Your task to perform on an android device: open app "Flipkart Online Shopping App" (install if not already installed) Image 0: 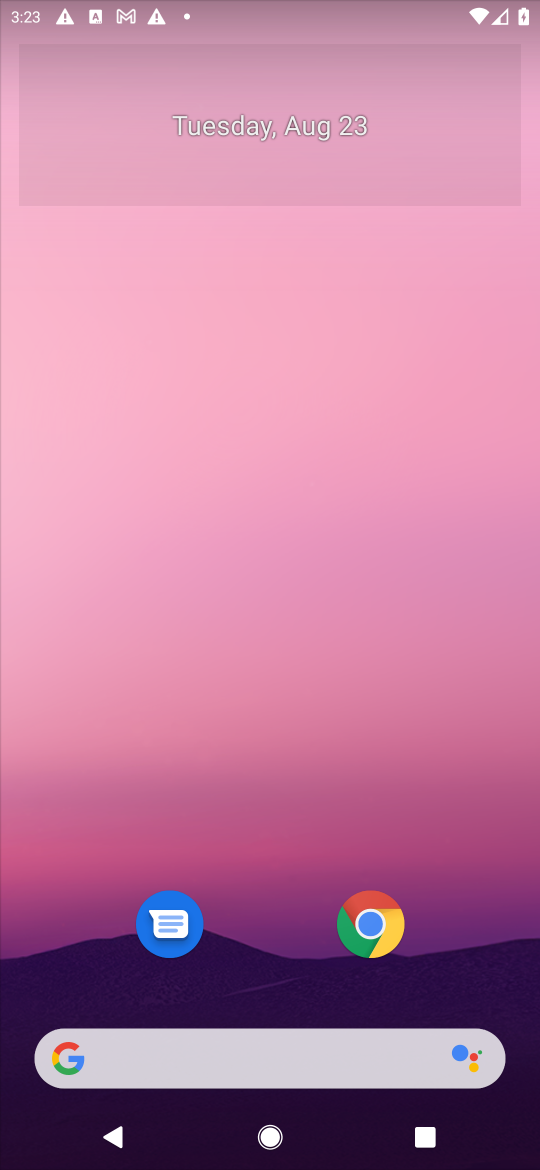
Step 0: drag from (476, 857) to (435, 105)
Your task to perform on an android device: open app "Flipkart Online Shopping App" (install if not already installed) Image 1: 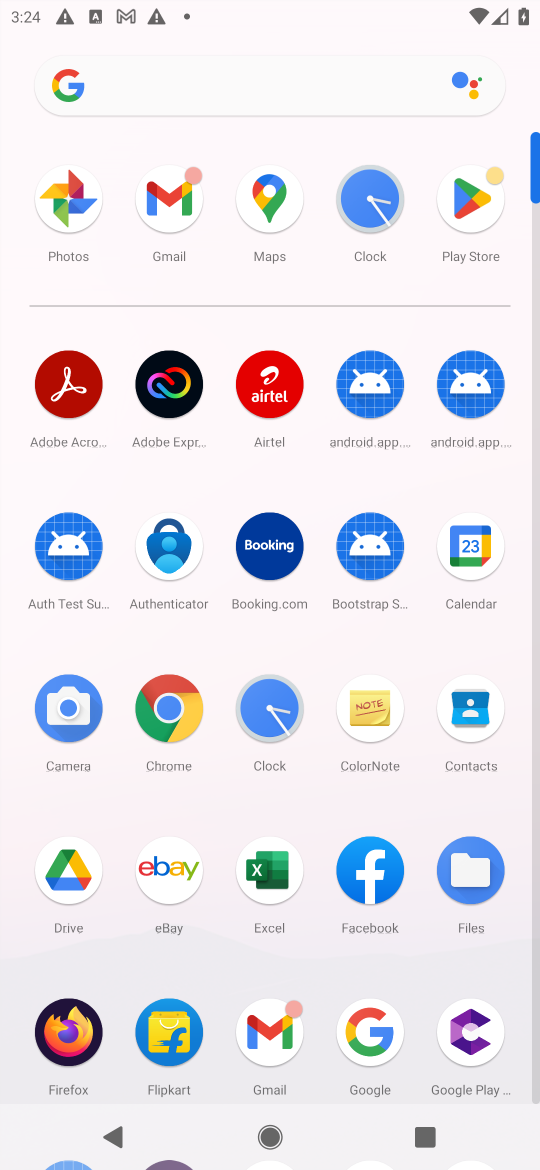
Step 1: click (473, 194)
Your task to perform on an android device: open app "Flipkart Online Shopping App" (install if not already installed) Image 2: 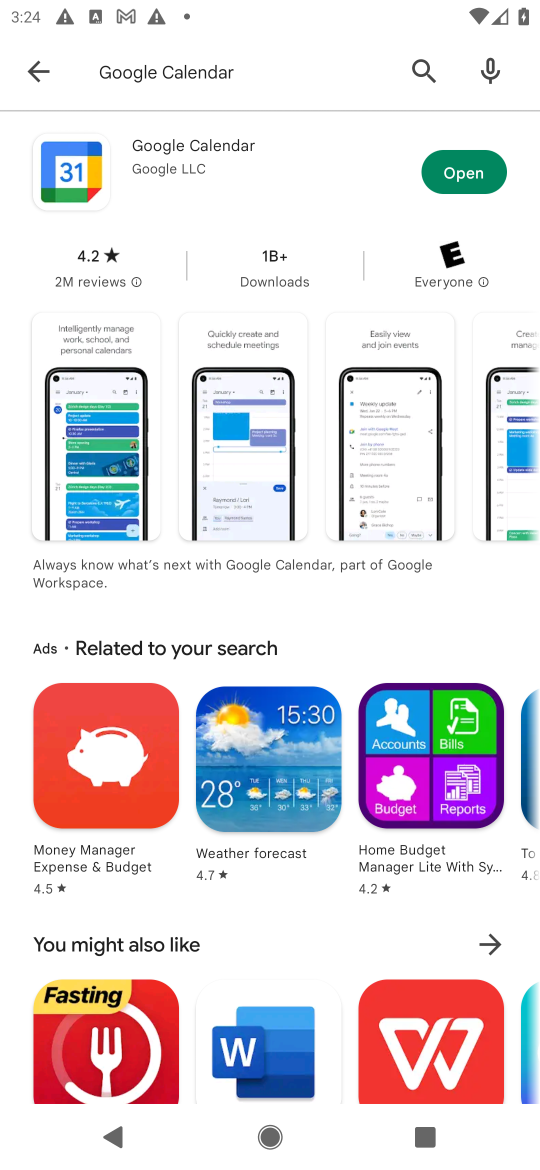
Step 2: press back button
Your task to perform on an android device: open app "Flipkart Online Shopping App" (install if not already installed) Image 3: 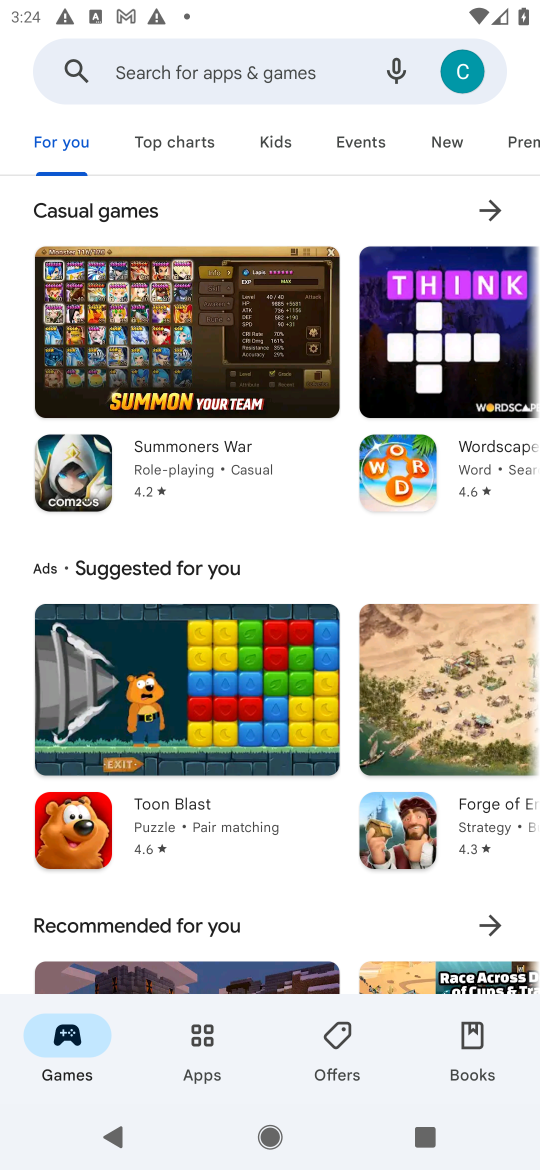
Step 3: click (255, 71)
Your task to perform on an android device: open app "Flipkart Online Shopping App" (install if not already installed) Image 4: 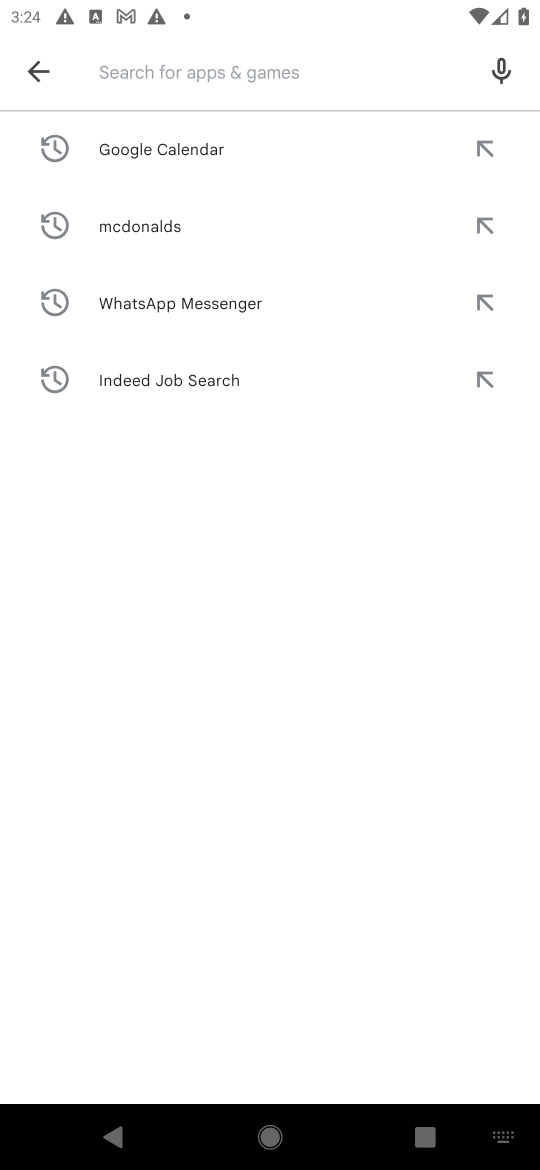
Step 4: type "Flipkart Online Shopping App"
Your task to perform on an android device: open app "Flipkart Online Shopping App" (install if not already installed) Image 5: 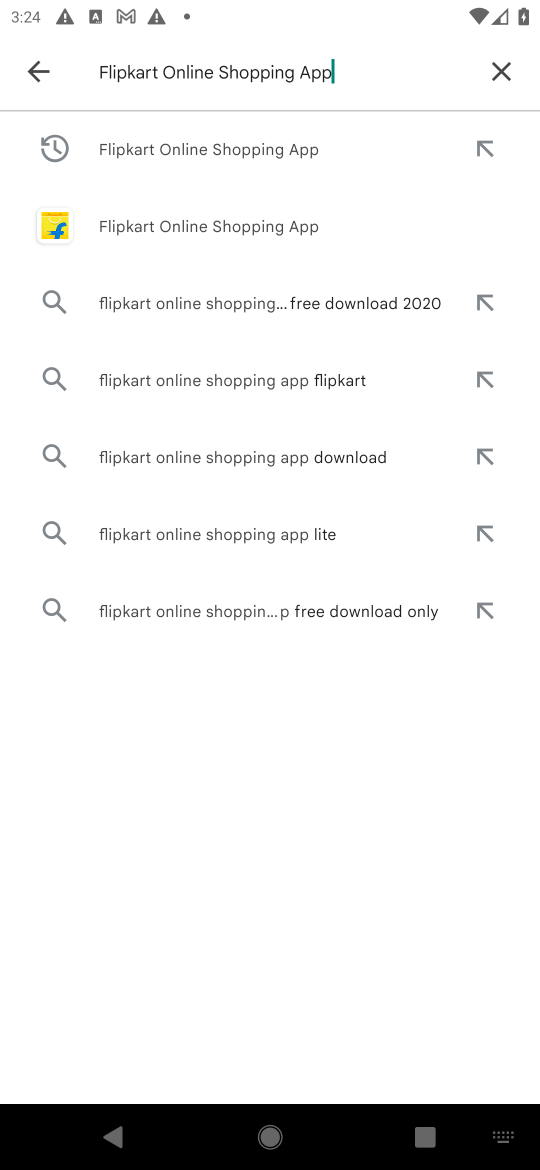
Step 5: press enter
Your task to perform on an android device: open app "Flipkart Online Shopping App" (install if not already installed) Image 6: 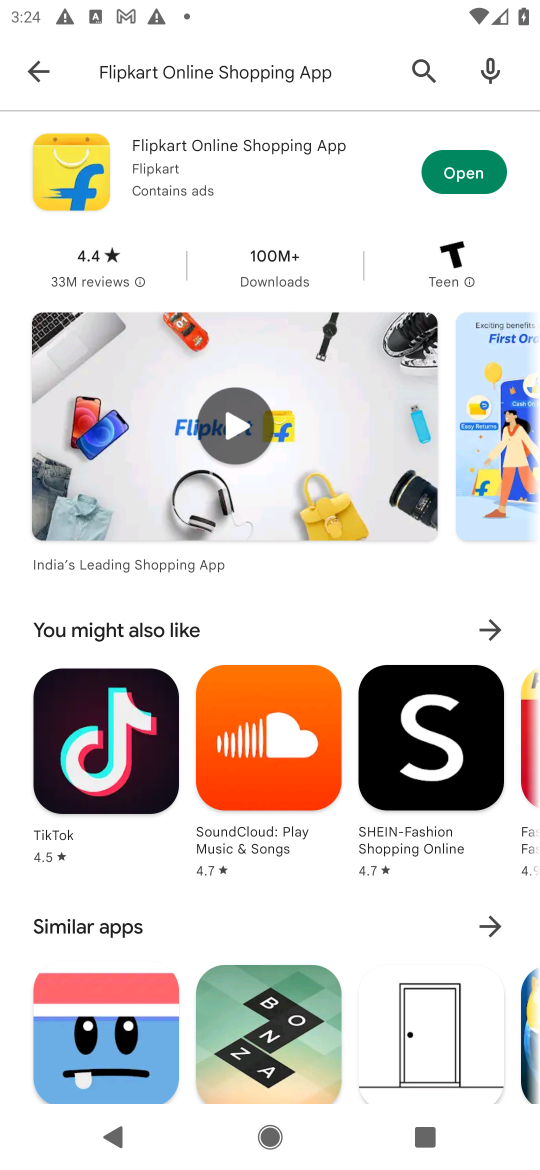
Step 6: click (458, 174)
Your task to perform on an android device: open app "Flipkart Online Shopping App" (install if not already installed) Image 7: 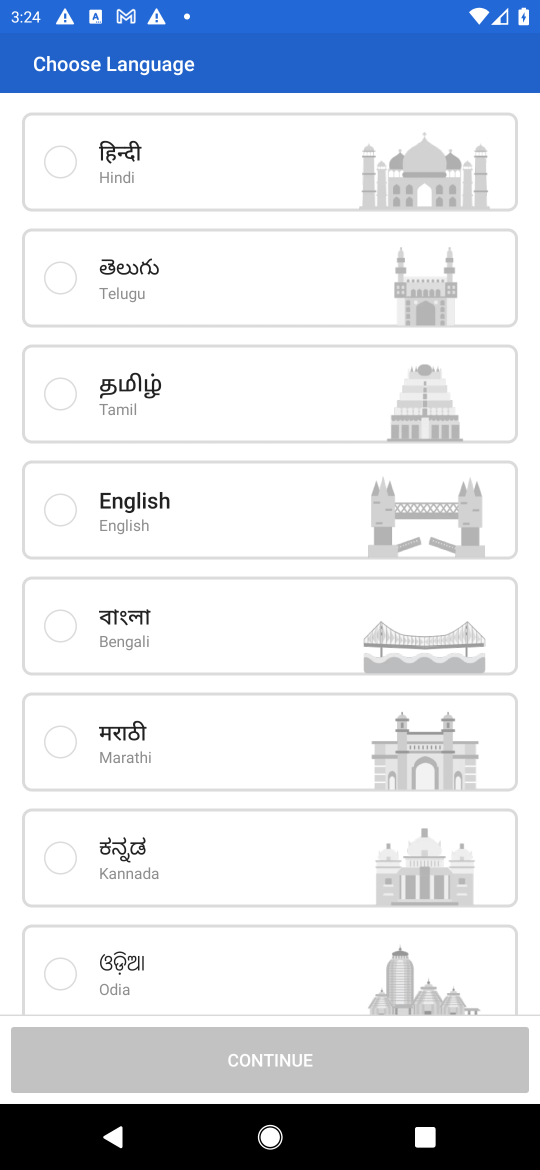
Step 7: task complete